Your task to perform on an android device: Open accessibility settings Image 0: 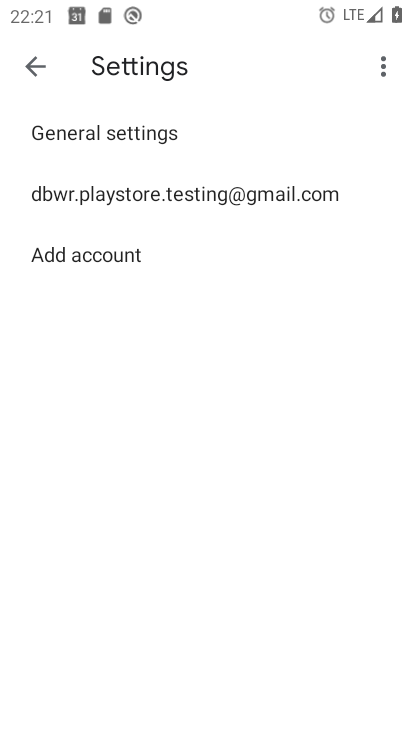
Step 0: press home button
Your task to perform on an android device: Open accessibility settings Image 1: 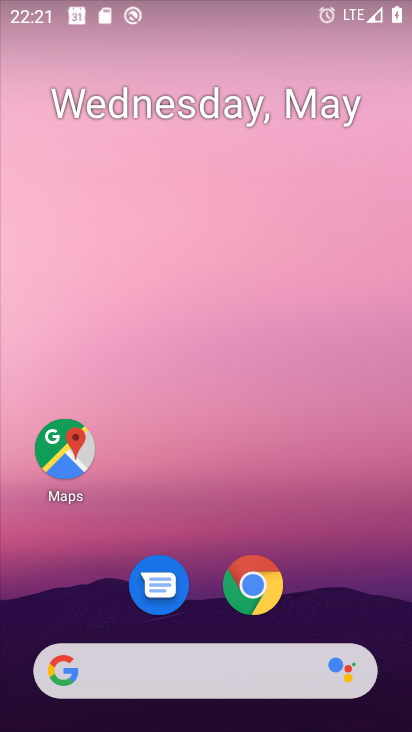
Step 1: drag from (203, 515) to (230, 1)
Your task to perform on an android device: Open accessibility settings Image 2: 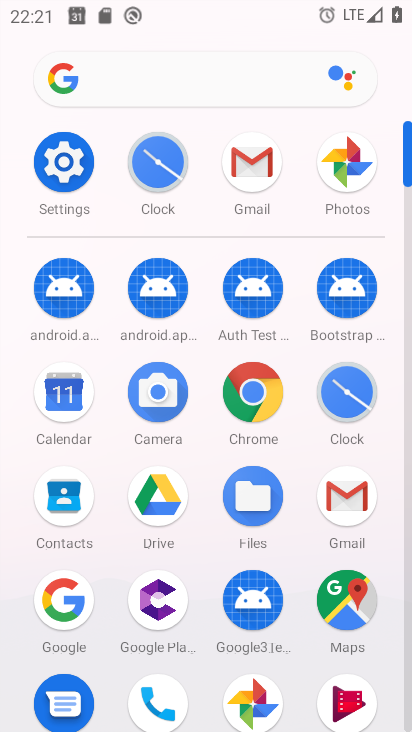
Step 2: click (63, 160)
Your task to perform on an android device: Open accessibility settings Image 3: 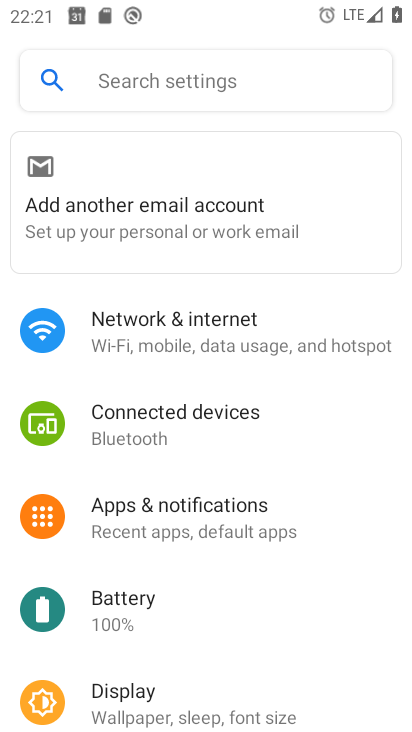
Step 3: drag from (217, 599) to (206, 9)
Your task to perform on an android device: Open accessibility settings Image 4: 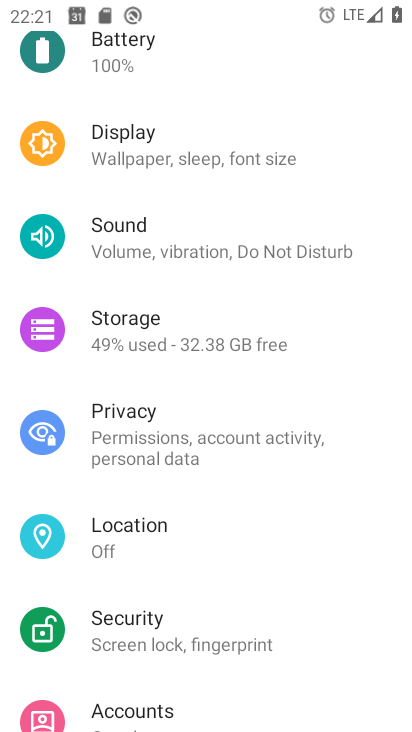
Step 4: drag from (249, 498) to (247, 113)
Your task to perform on an android device: Open accessibility settings Image 5: 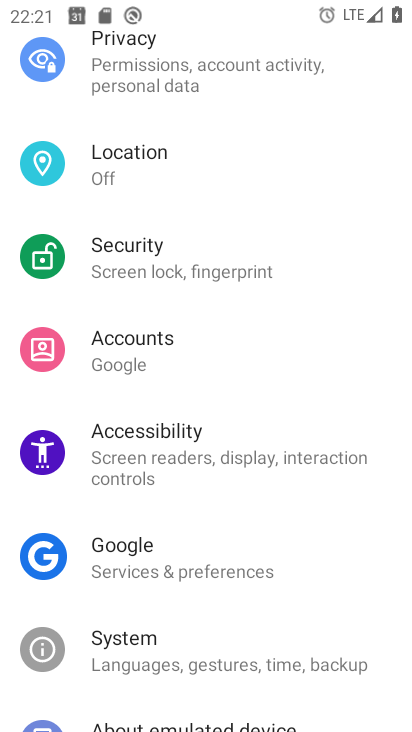
Step 5: click (220, 452)
Your task to perform on an android device: Open accessibility settings Image 6: 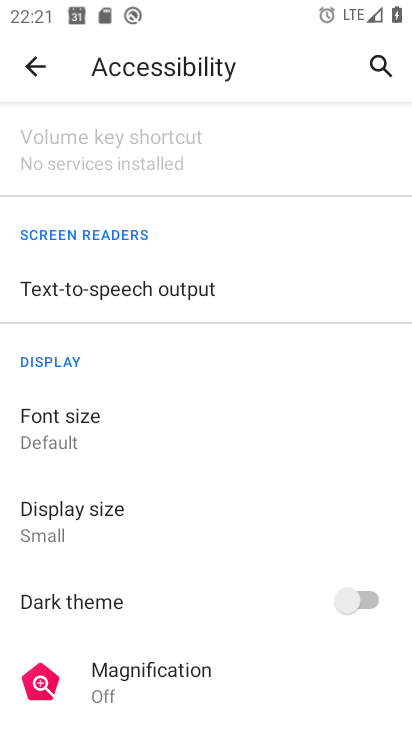
Step 6: task complete